Your task to perform on an android device: turn on notifications settings in the gmail app Image 0: 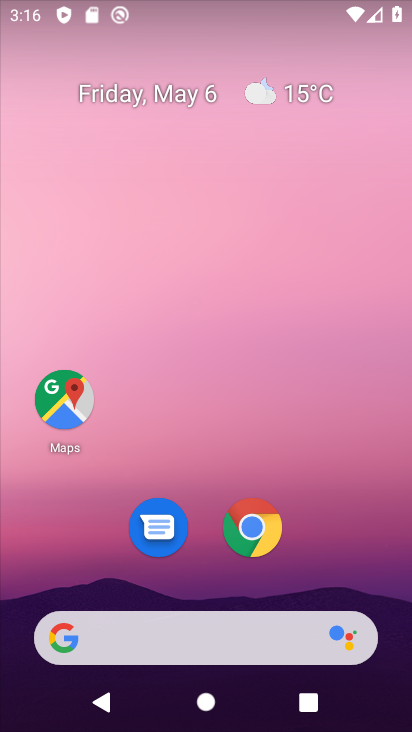
Step 0: drag from (331, 578) to (378, 69)
Your task to perform on an android device: turn on notifications settings in the gmail app Image 1: 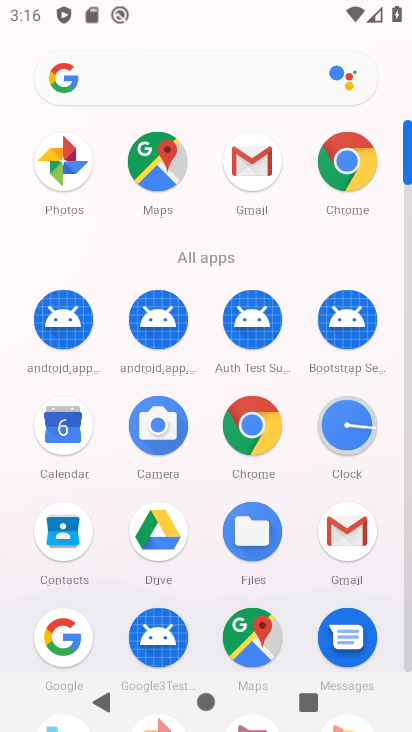
Step 1: click (242, 197)
Your task to perform on an android device: turn on notifications settings in the gmail app Image 2: 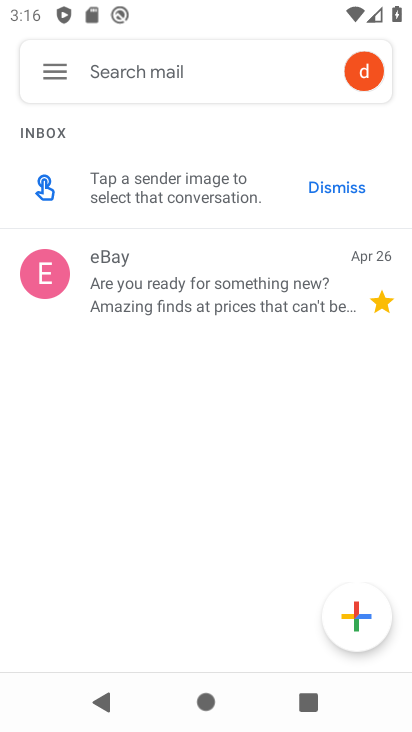
Step 2: click (37, 70)
Your task to perform on an android device: turn on notifications settings in the gmail app Image 3: 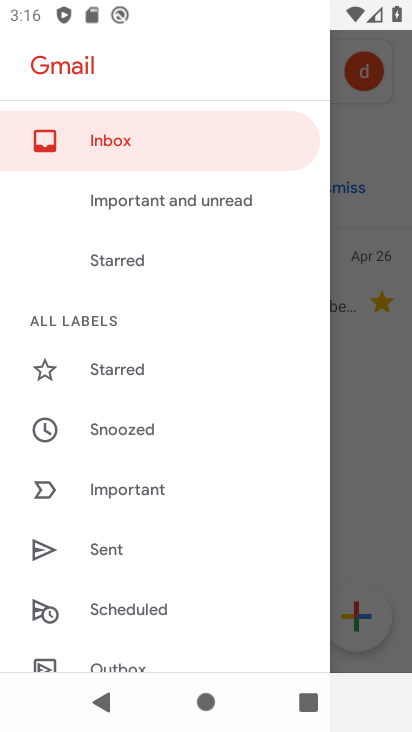
Step 3: drag from (160, 609) to (182, 136)
Your task to perform on an android device: turn on notifications settings in the gmail app Image 4: 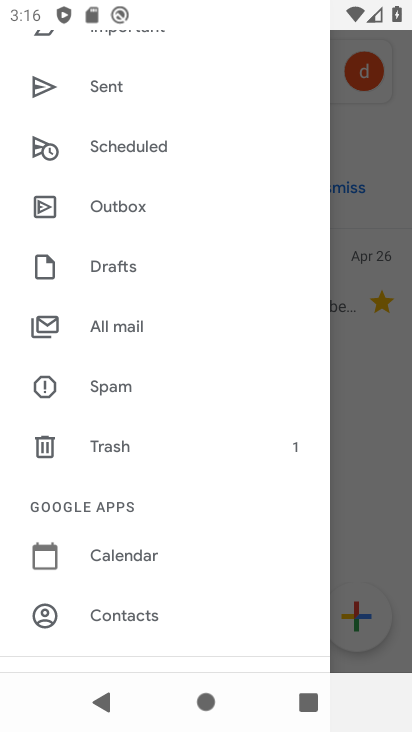
Step 4: drag from (152, 614) to (160, 180)
Your task to perform on an android device: turn on notifications settings in the gmail app Image 5: 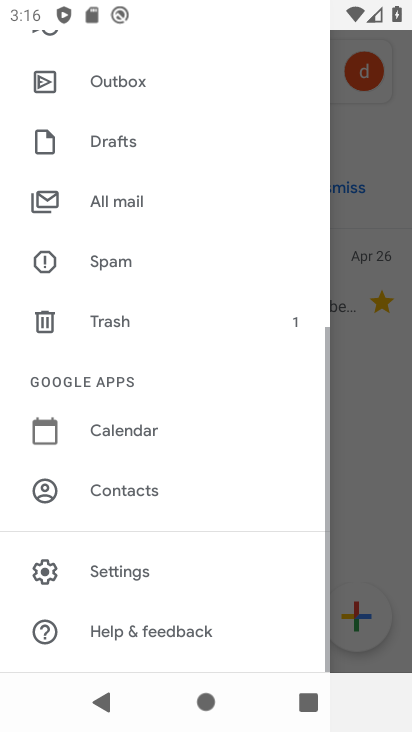
Step 5: click (121, 569)
Your task to perform on an android device: turn on notifications settings in the gmail app Image 6: 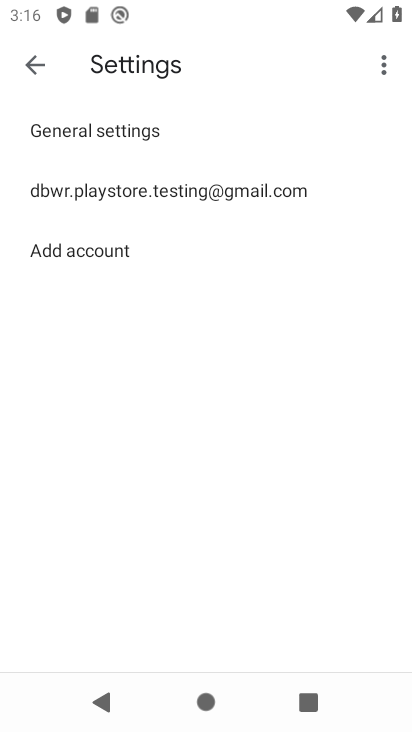
Step 6: click (171, 184)
Your task to perform on an android device: turn on notifications settings in the gmail app Image 7: 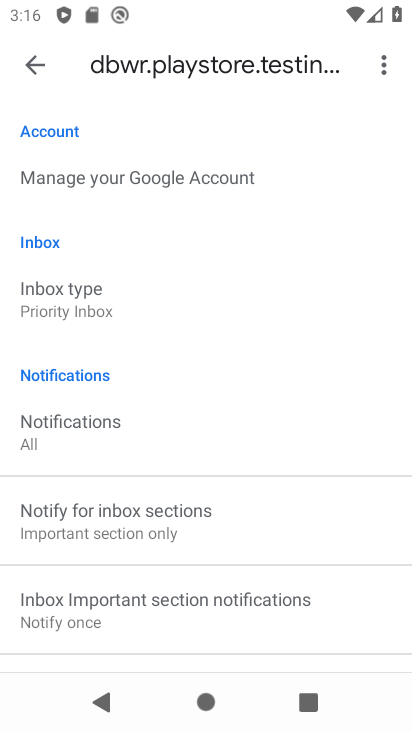
Step 7: drag from (237, 559) to (265, 93)
Your task to perform on an android device: turn on notifications settings in the gmail app Image 8: 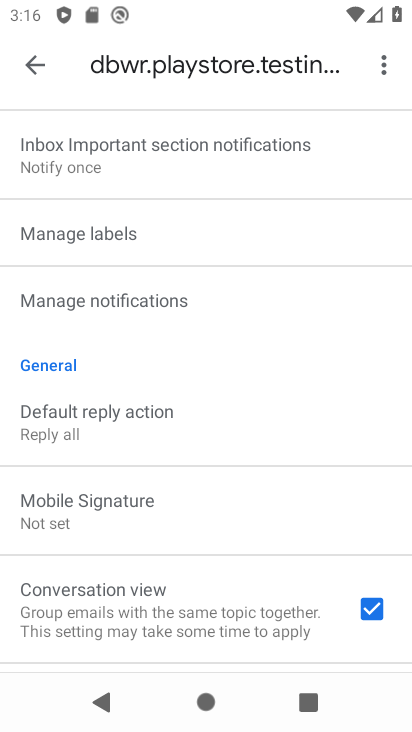
Step 8: click (80, 386)
Your task to perform on an android device: turn on notifications settings in the gmail app Image 9: 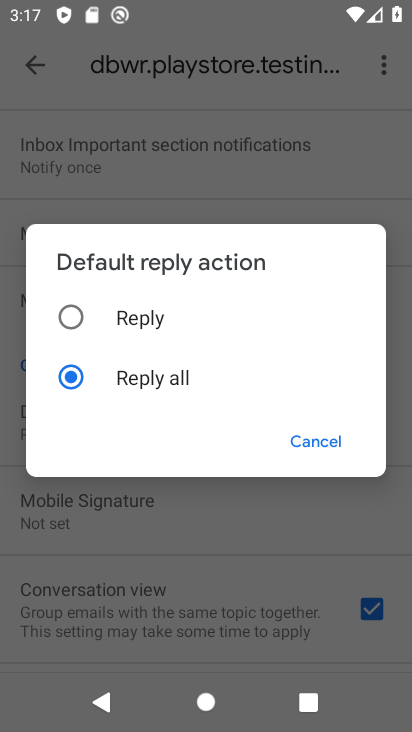
Step 9: press back button
Your task to perform on an android device: turn on notifications settings in the gmail app Image 10: 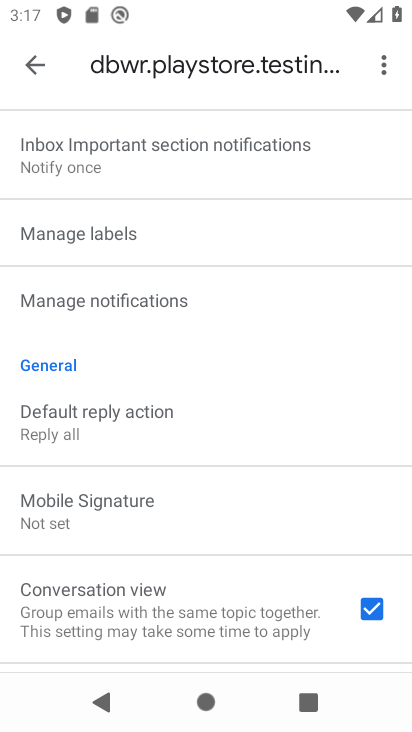
Step 10: drag from (210, 553) to (293, 160)
Your task to perform on an android device: turn on notifications settings in the gmail app Image 11: 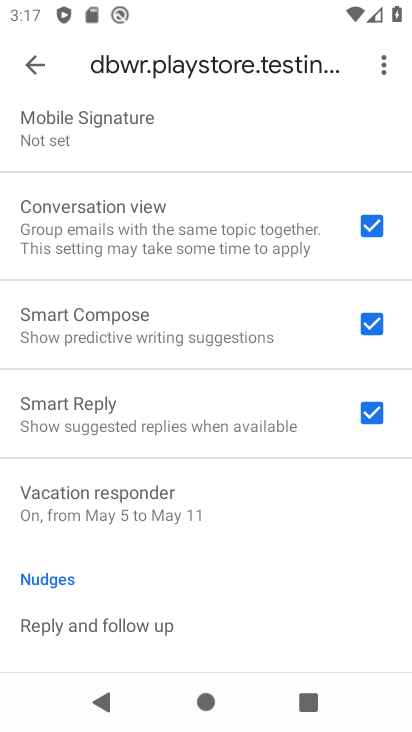
Step 11: drag from (225, 313) to (193, 716)
Your task to perform on an android device: turn on notifications settings in the gmail app Image 12: 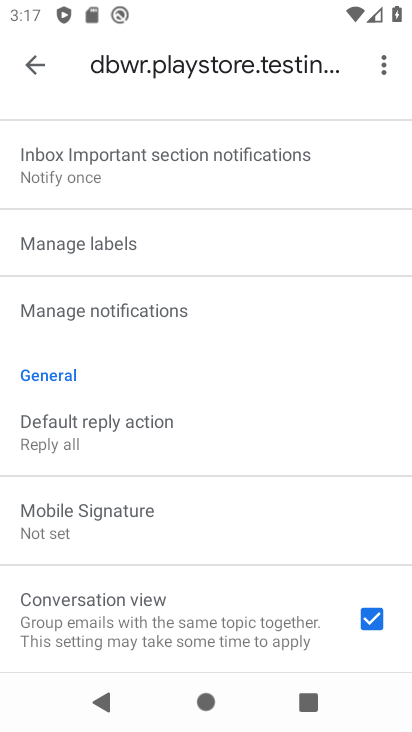
Step 12: drag from (150, 319) to (59, 726)
Your task to perform on an android device: turn on notifications settings in the gmail app Image 13: 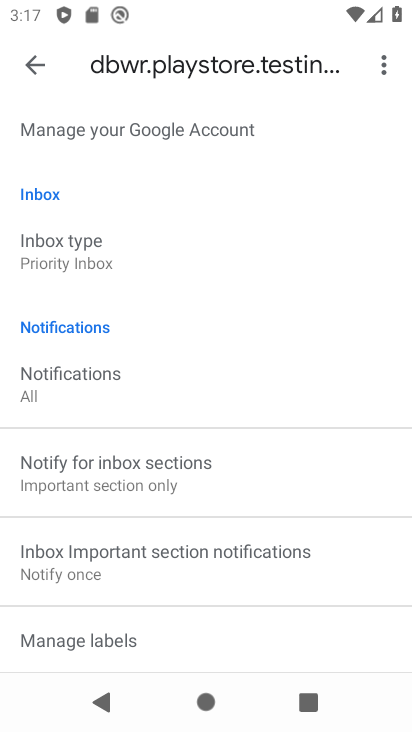
Step 13: drag from (142, 183) to (139, 507)
Your task to perform on an android device: turn on notifications settings in the gmail app Image 14: 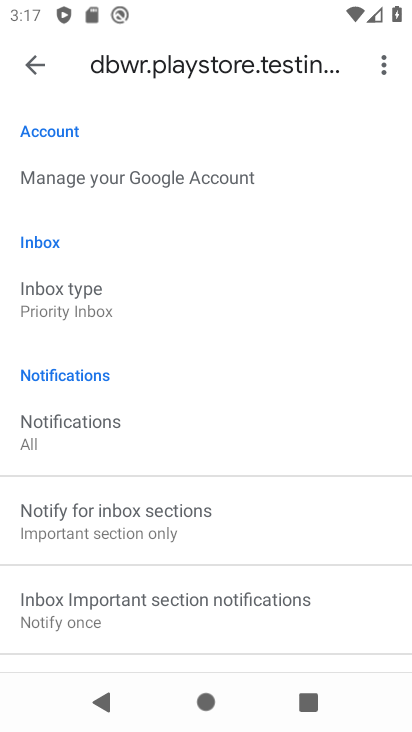
Step 14: click (64, 432)
Your task to perform on an android device: turn on notifications settings in the gmail app Image 15: 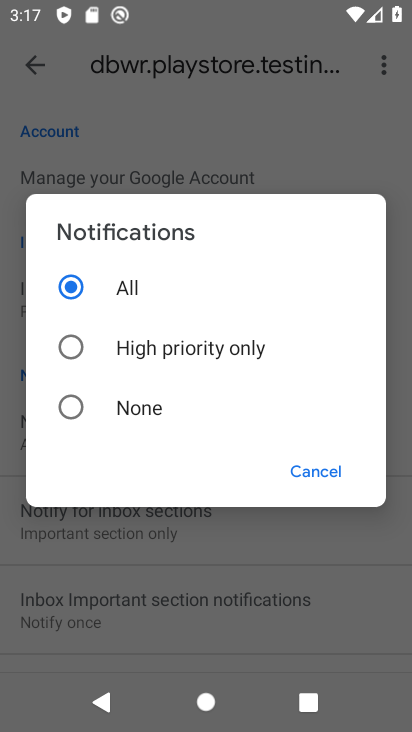
Step 15: task complete